Your task to perform on an android device: turn on location history Image 0: 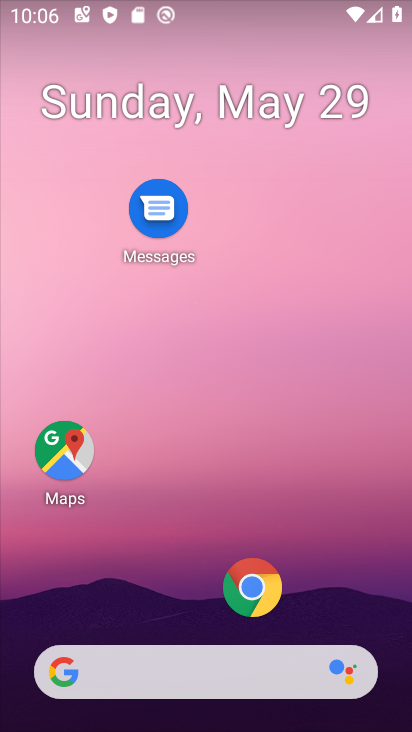
Step 0: drag from (174, 597) to (291, 69)
Your task to perform on an android device: turn on location history Image 1: 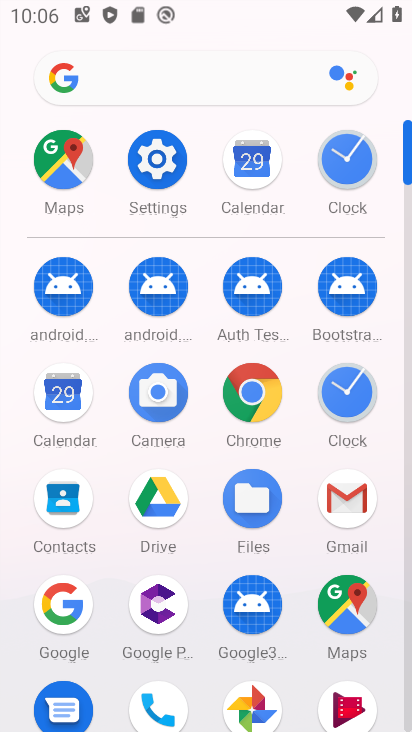
Step 1: click (159, 156)
Your task to perform on an android device: turn on location history Image 2: 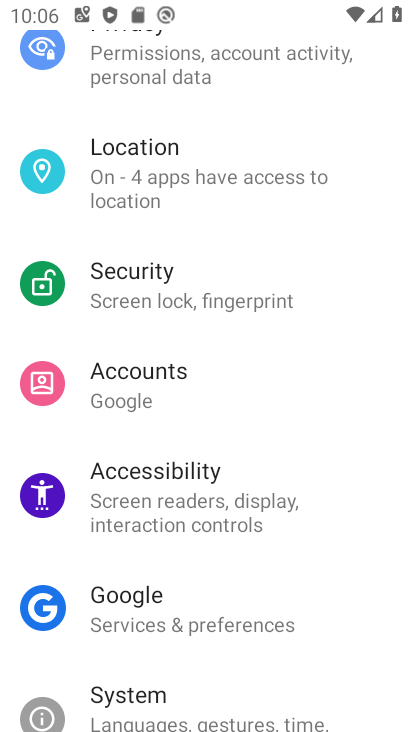
Step 2: click (156, 182)
Your task to perform on an android device: turn on location history Image 3: 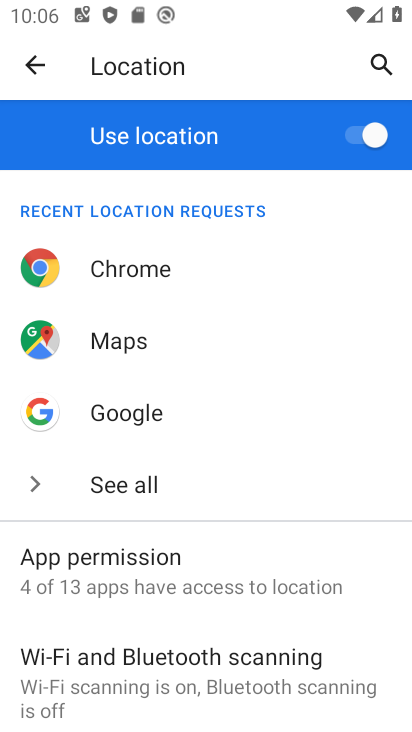
Step 3: drag from (144, 628) to (242, 186)
Your task to perform on an android device: turn on location history Image 4: 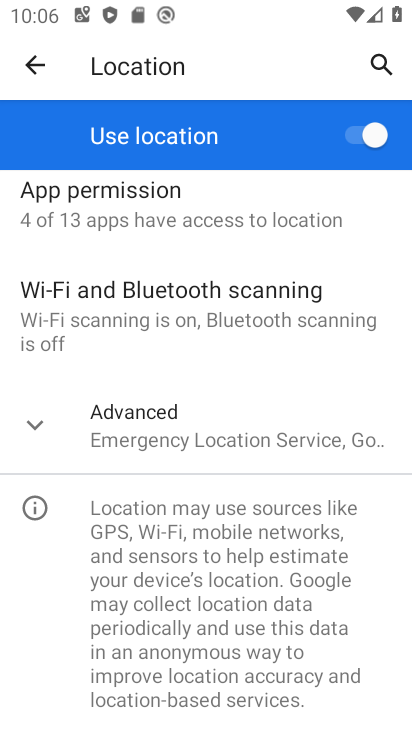
Step 4: click (221, 443)
Your task to perform on an android device: turn on location history Image 5: 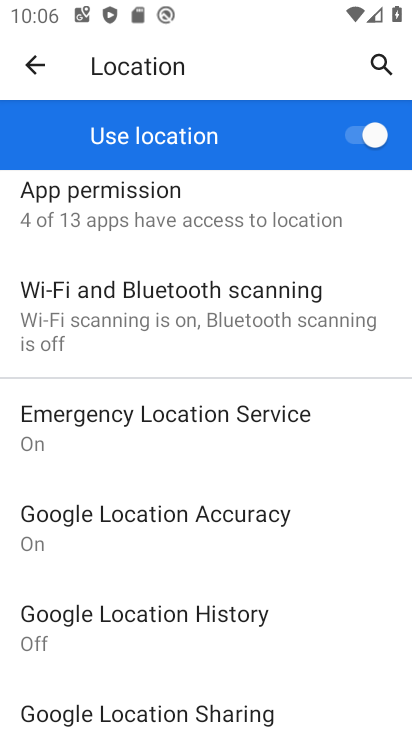
Step 5: click (170, 612)
Your task to perform on an android device: turn on location history Image 6: 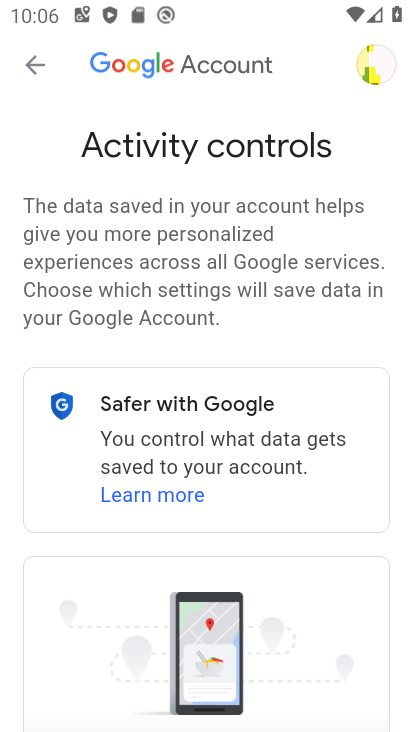
Step 6: task complete